Your task to perform on an android device: turn off translation in the chrome app Image 0: 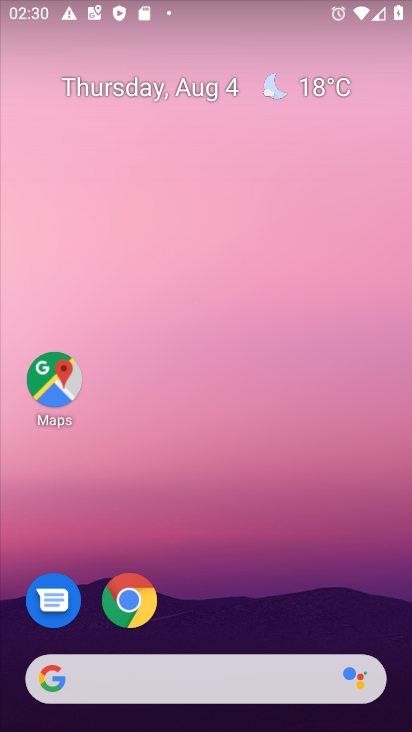
Step 0: drag from (269, 1) to (223, 581)
Your task to perform on an android device: turn off translation in the chrome app Image 1: 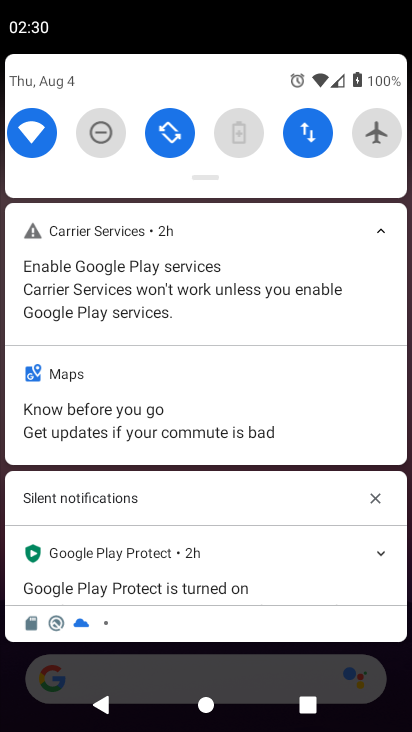
Step 1: task complete